Your task to perform on an android device: Open sound settings Image 0: 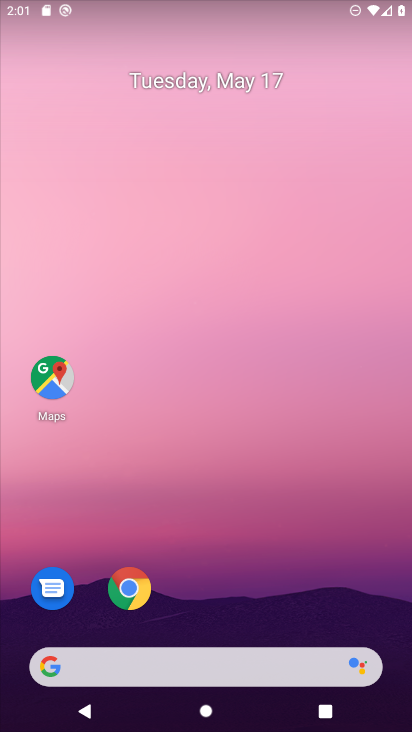
Step 0: drag from (209, 583) to (43, 67)
Your task to perform on an android device: Open sound settings Image 1: 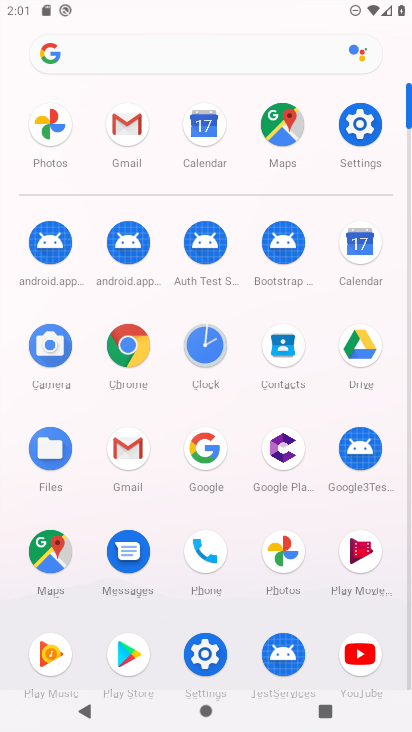
Step 1: click (357, 133)
Your task to perform on an android device: Open sound settings Image 2: 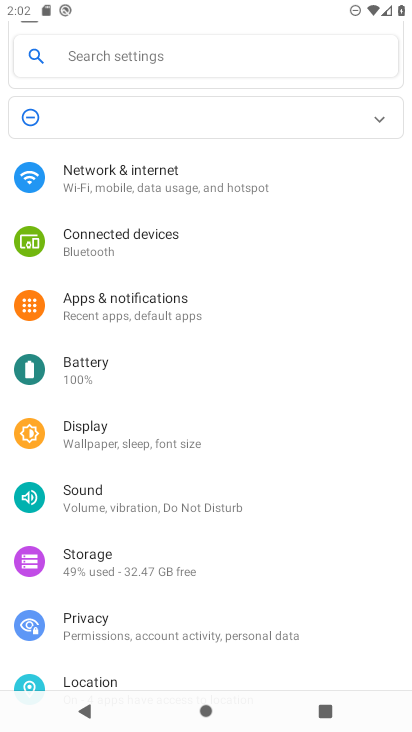
Step 2: click (91, 493)
Your task to perform on an android device: Open sound settings Image 3: 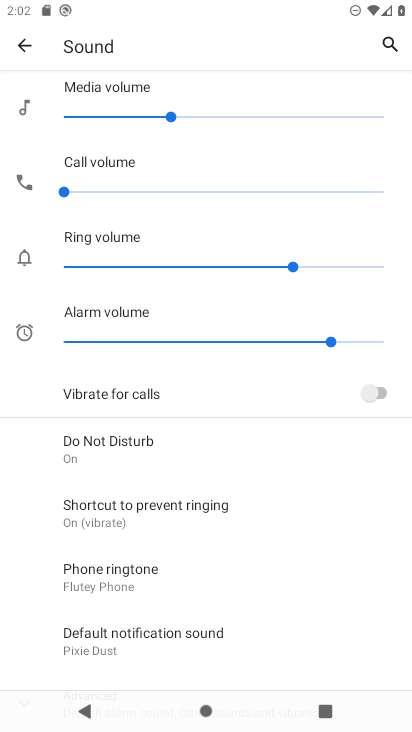
Step 3: drag from (149, 638) to (205, 139)
Your task to perform on an android device: Open sound settings Image 4: 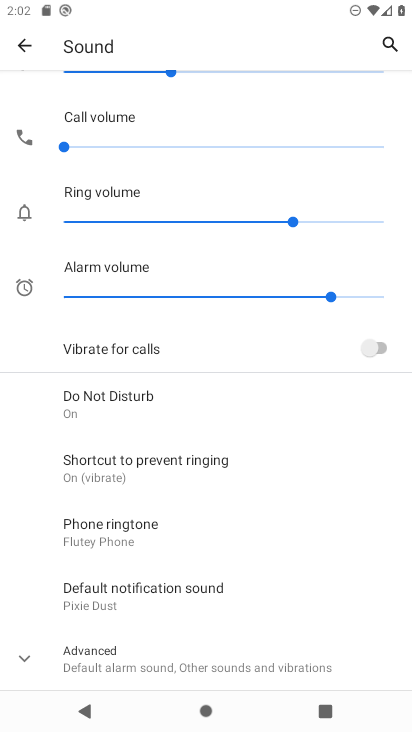
Step 4: click (58, 653)
Your task to perform on an android device: Open sound settings Image 5: 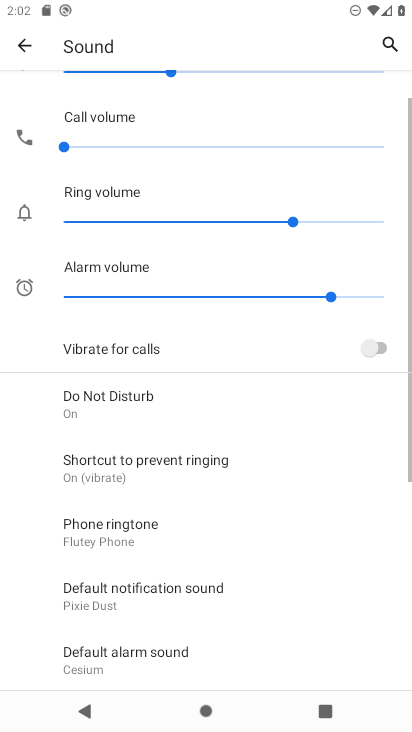
Step 5: task complete